Your task to perform on an android device: Go to Android settings Image 0: 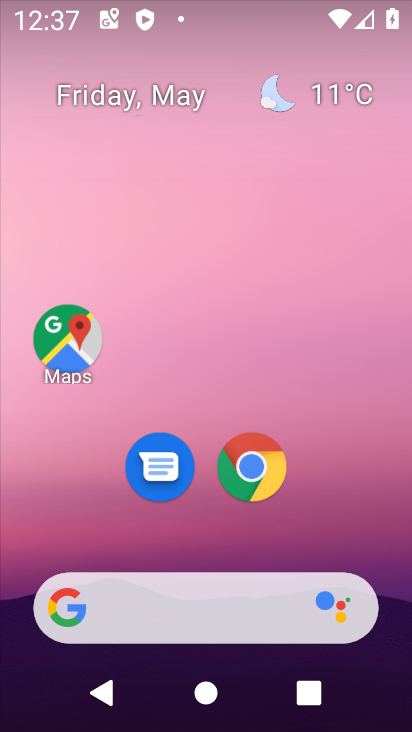
Step 0: click (386, 174)
Your task to perform on an android device: Go to Android settings Image 1: 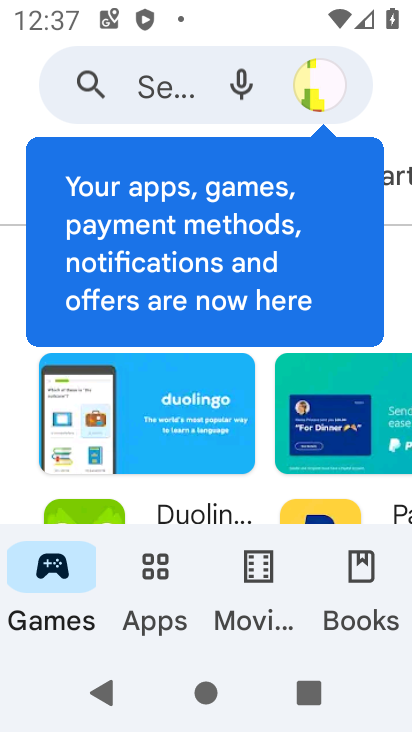
Step 1: press home button
Your task to perform on an android device: Go to Android settings Image 2: 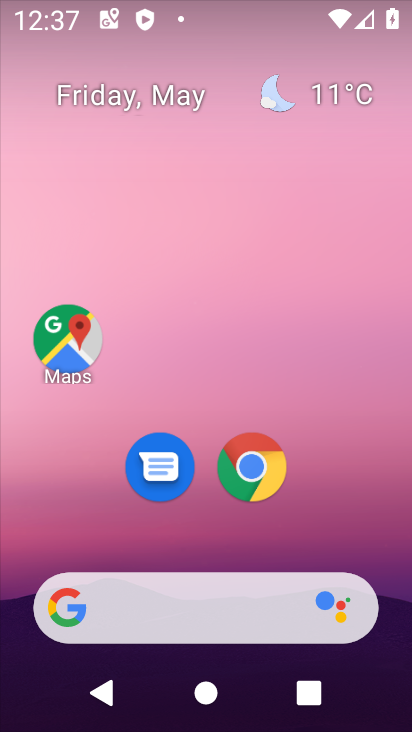
Step 2: drag from (373, 510) to (343, 122)
Your task to perform on an android device: Go to Android settings Image 3: 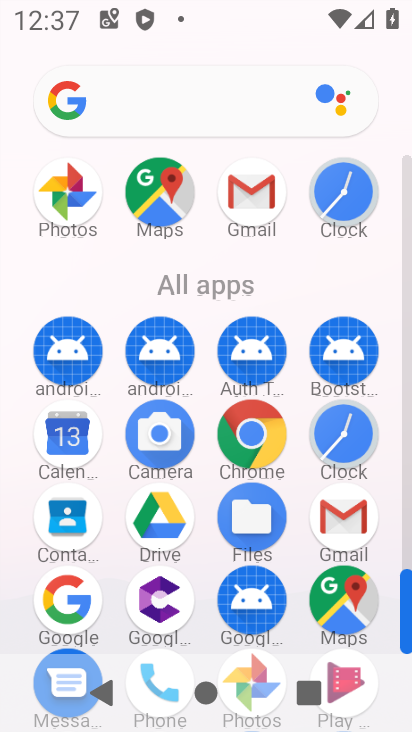
Step 3: drag from (220, 574) to (229, 245)
Your task to perform on an android device: Go to Android settings Image 4: 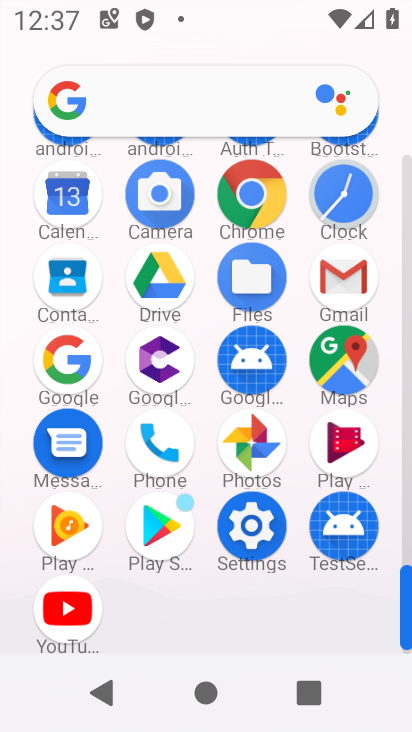
Step 4: click (247, 550)
Your task to perform on an android device: Go to Android settings Image 5: 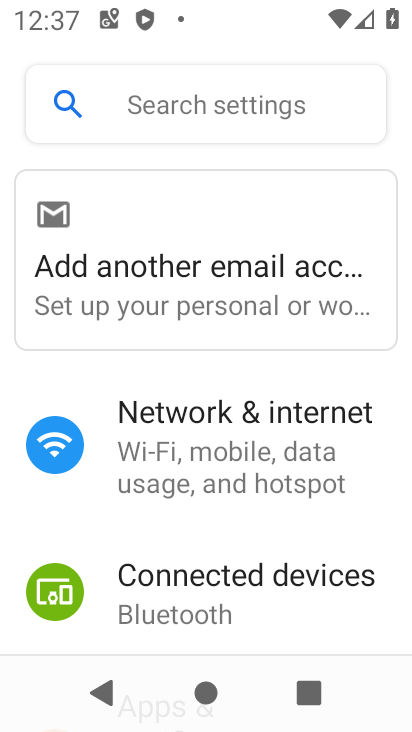
Step 5: task complete